Your task to perform on an android device: turn on priority inbox in the gmail app Image 0: 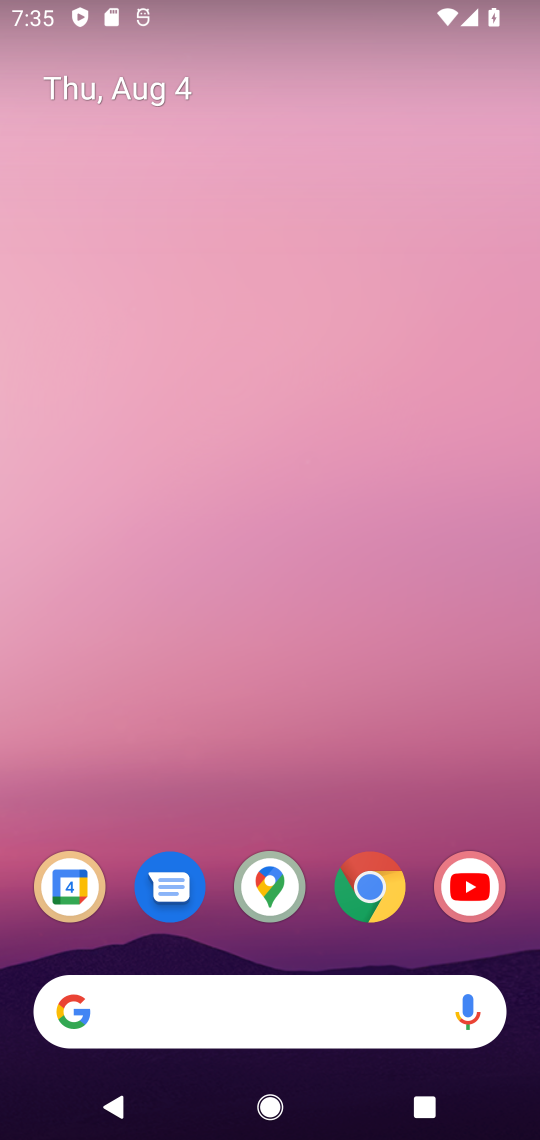
Step 0: drag from (213, 752) to (240, 179)
Your task to perform on an android device: turn on priority inbox in the gmail app Image 1: 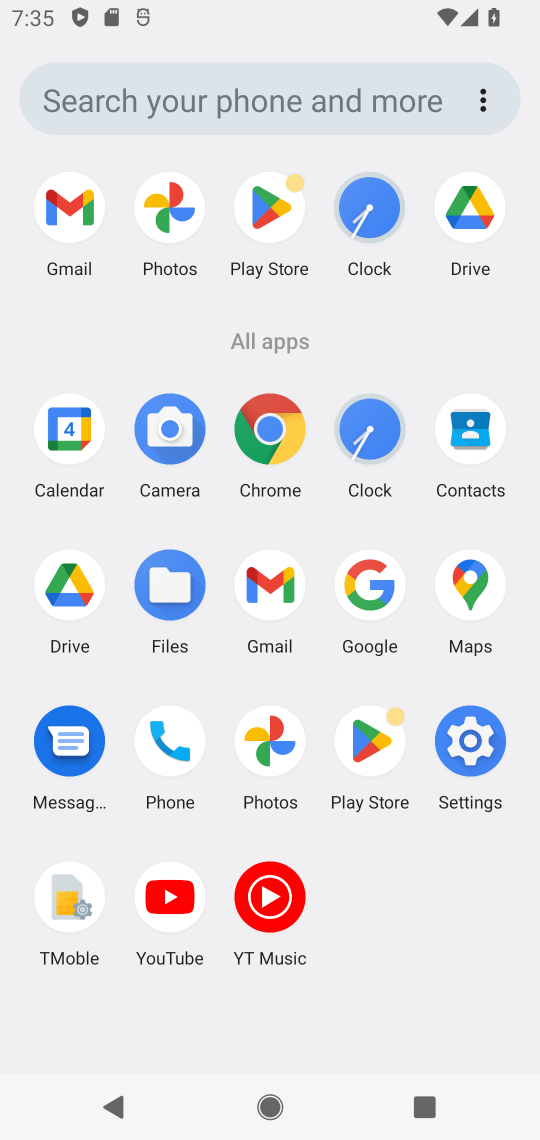
Step 1: click (72, 253)
Your task to perform on an android device: turn on priority inbox in the gmail app Image 2: 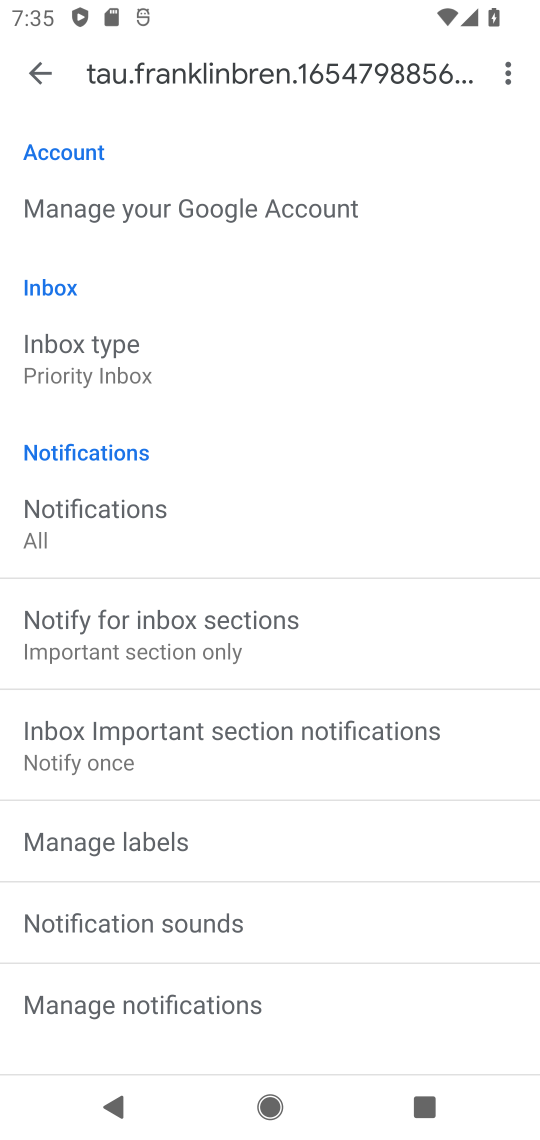
Step 2: task complete